Your task to perform on an android device: turn on data saver in the chrome app Image 0: 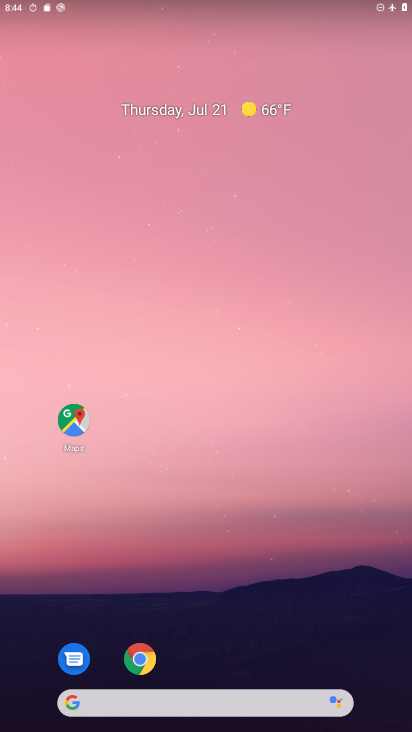
Step 0: drag from (176, 680) to (288, 133)
Your task to perform on an android device: turn on data saver in the chrome app Image 1: 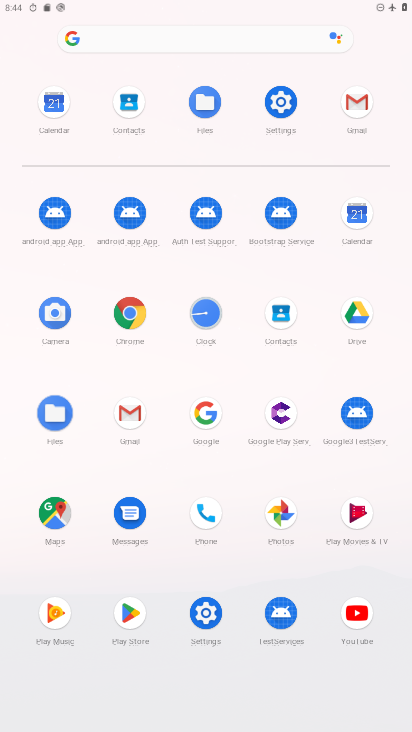
Step 1: click (125, 312)
Your task to perform on an android device: turn on data saver in the chrome app Image 2: 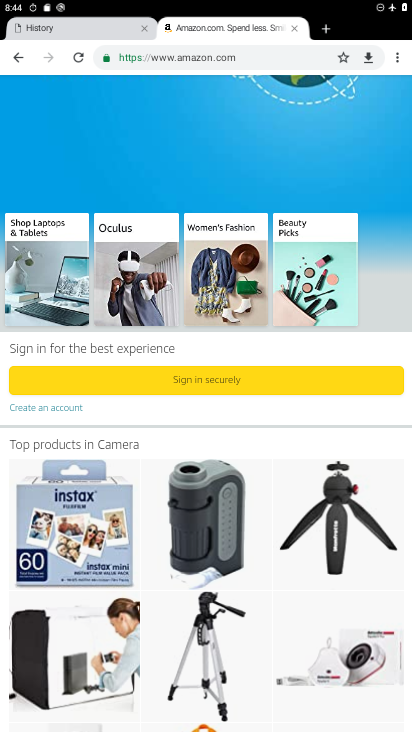
Step 2: drag from (395, 54) to (314, 353)
Your task to perform on an android device: turn on data saver in the chrome app Image 3: 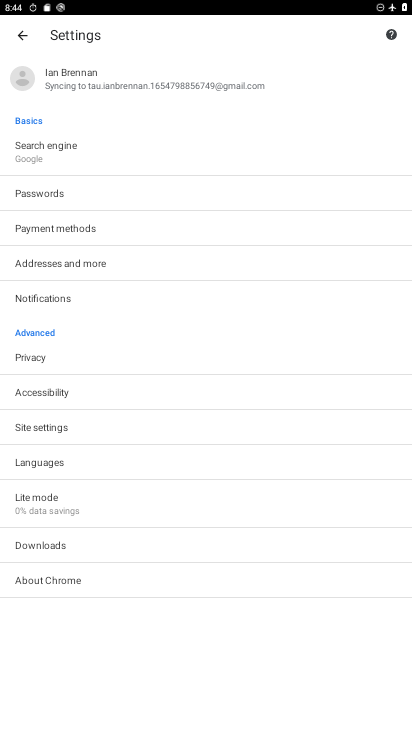
Step 3: click (91, 502)
Your task to perform on an android device: turn on data saver in the chrome app Image 4: 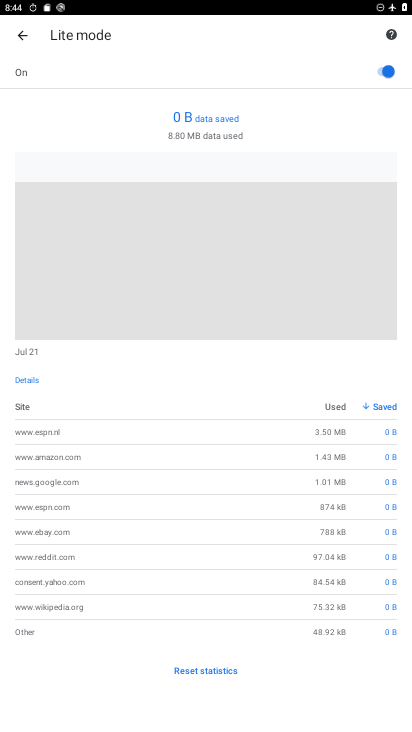
Step 4: task complete